Your task to perform on an android device: change the upload size in google photos Image 0: 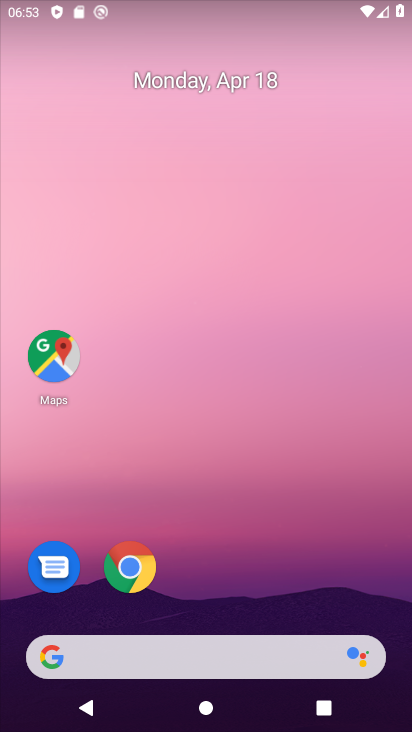
Step 0: drag from (246, 535) to (319, 8)
Your task to perform on an android device: change the upload size in google photos Image 1: 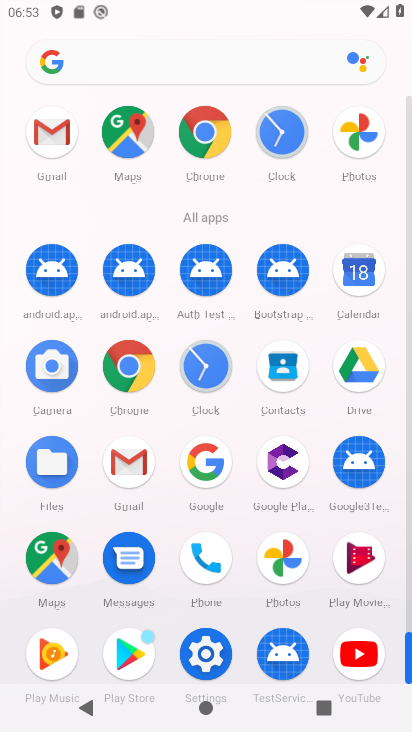
Step 1: click (371, 134)
Your task to perform on an android device: change the upload size in google photos Image 2: 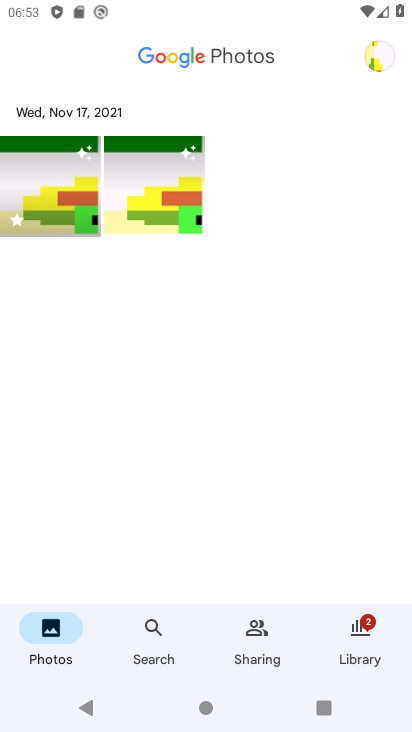
Step 2: click (395, 58)
Your task to perform on an android device: change the upload size in google photos Image 3: 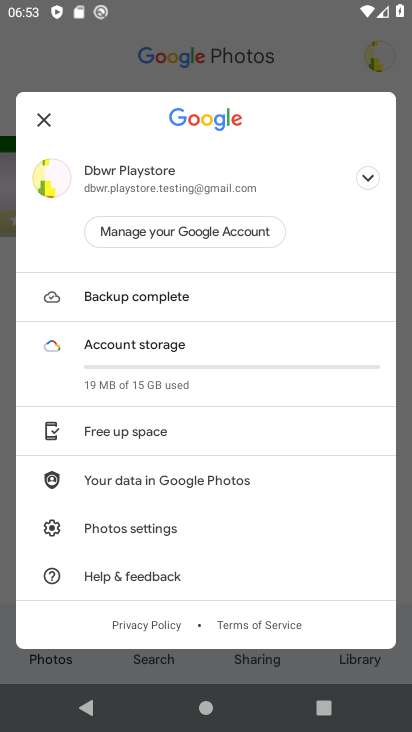
Step 3: click (81, 536)
Your task to perform on an android device: change the upload size in google photos Image 4: 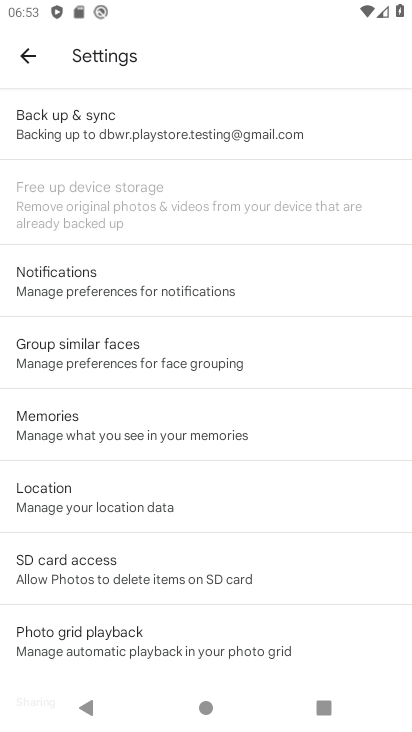
Step 4: click (46, 143)
Your task to perform on an android device: change the upload size in google photos Image 5: 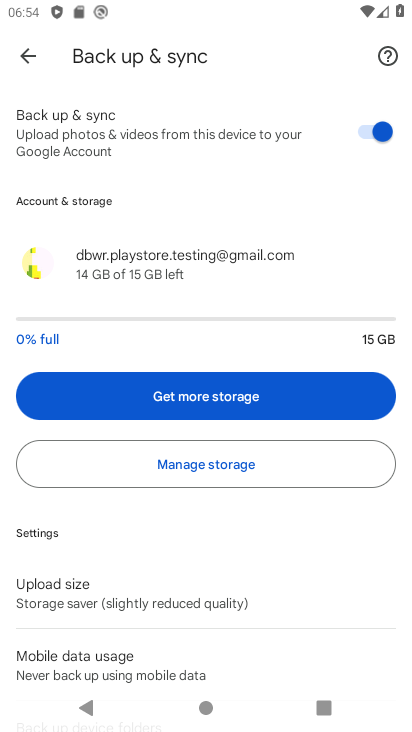
Step 5: click (99, 602)
Your task to perform on an android device: change the upload size in google photos Image 6: 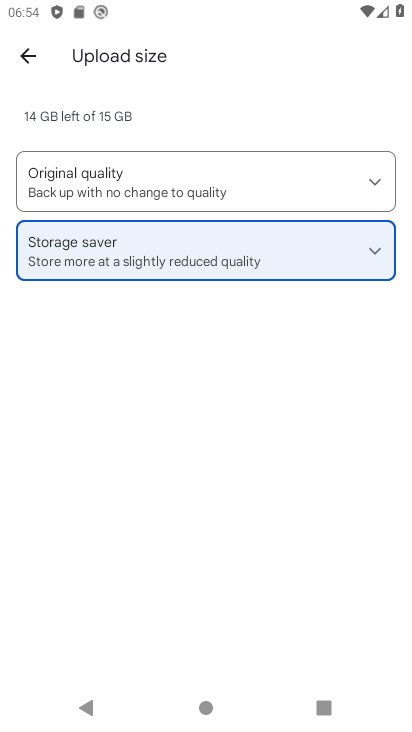
Step 6: click (213, 180)
Your task to perform on an android device: change the upload size in google photos Image 7: 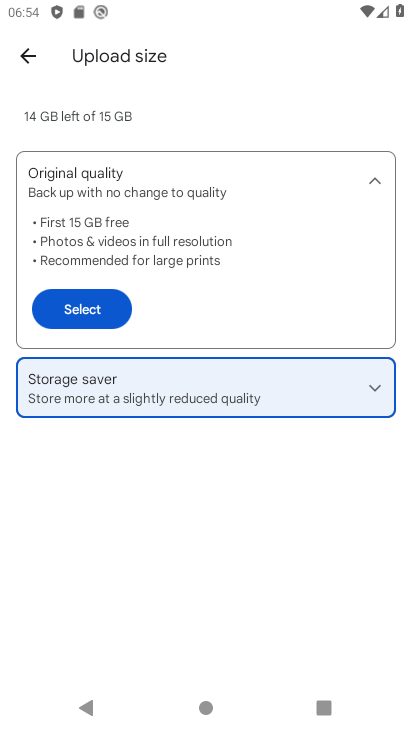
Step 7: click (59, 320)
Your task to perform on an android device: change the upload size in google photos Image 8: 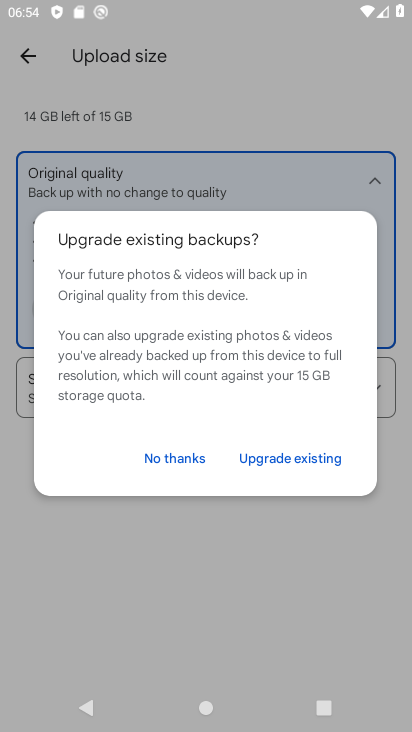
Step 8: click (275, 450)
Your task to perform on an android device: change the upload size in google photos Image 9: 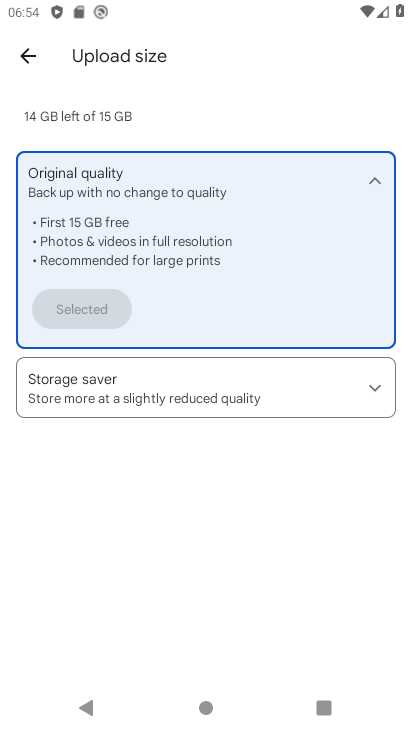
Step 9: task complete